Your task to perform on an android device: see tabs open on other devices in the chrome app Image 0: 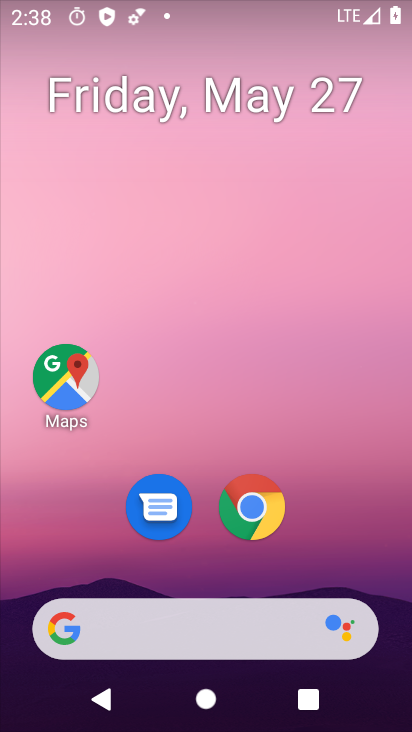
Step 0: click (252, 498)
Your task to perform on an android device: see tabs open on other devices in the chrome app Image 1: 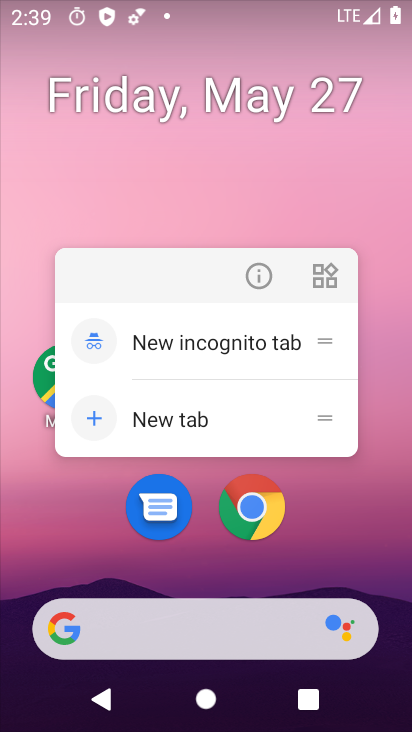
Step 1: click (252, 498)
Your task to perform on an android device: see tabs open on other devices in the chrome app Image 2: 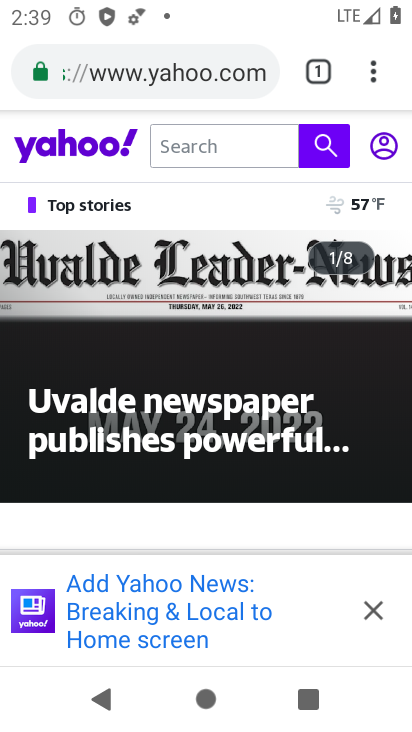
Step 2: click (313, 76)
Your task to perform on an android device: see tabs open on other devices in the chrome app Image 3: 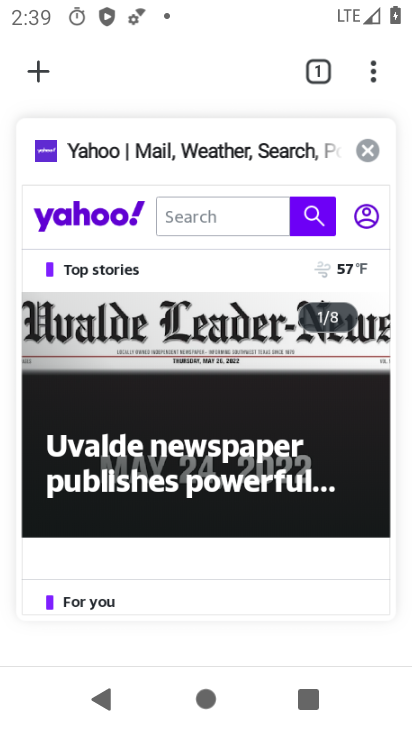
Step 3: task complete